Your task to perform on an android device: open wifi settings Image 0: 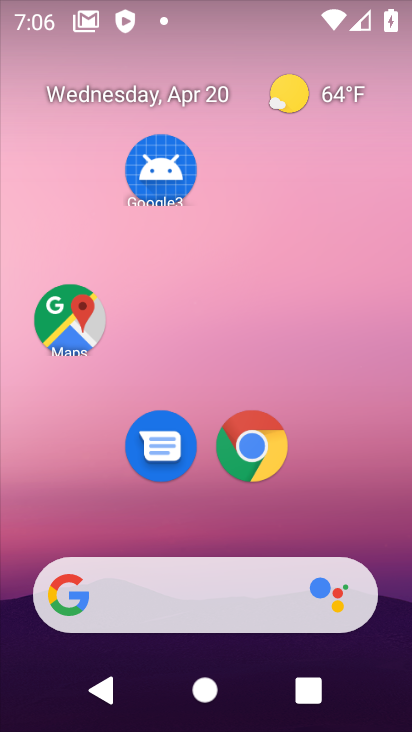
Step 0: click (202, 525)
Your task to perform on an android device: open wifi settings Image 1: 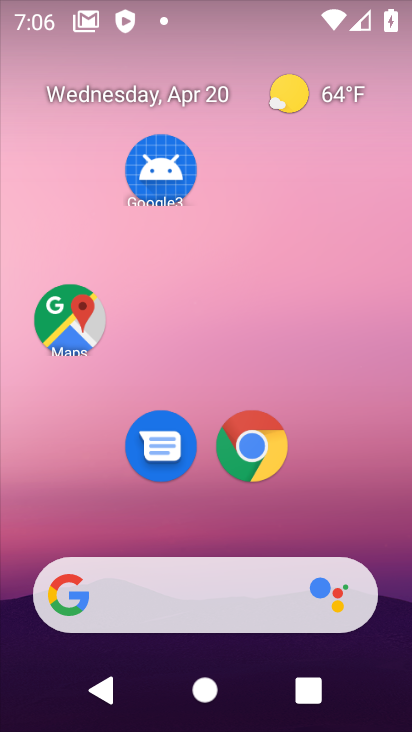
Step 1: drag from (202, 525) to (190, 9)
Your task to perform on an android device: open wifi settings Image 2: 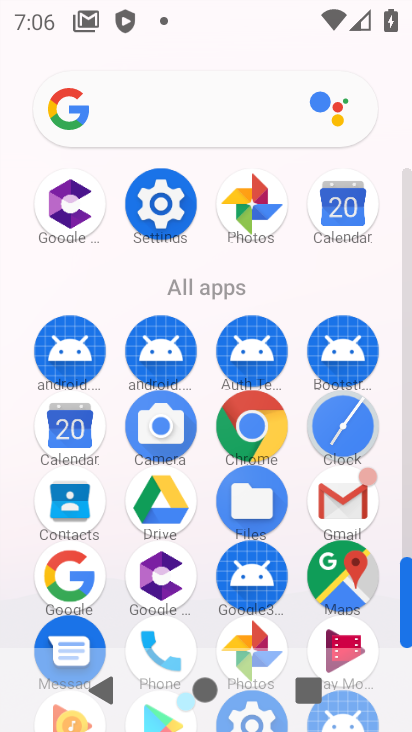
Step 2: click (159, 203)
Your task to perform on an android device: open wifi settings Image 3: 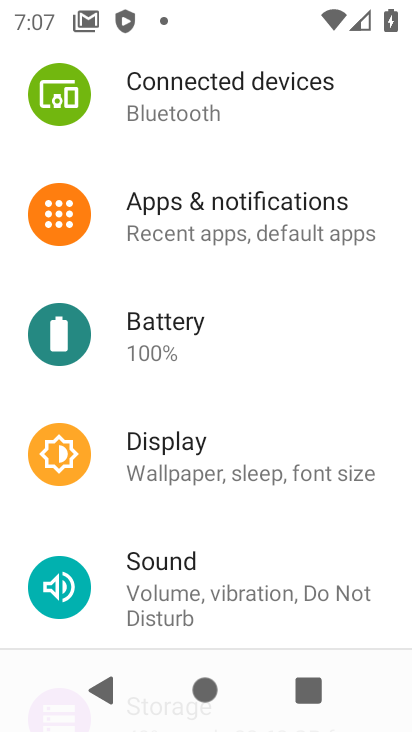
Step 3: drag from (224, 166) to (288, 651)
Your task to perform on an android device: open wifi settings Image 4: 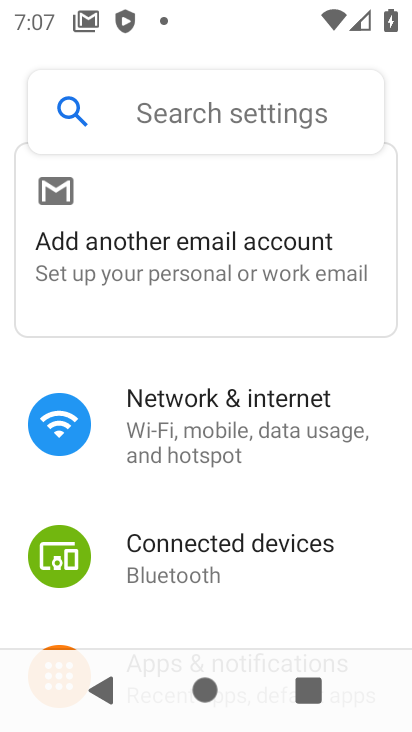
Step 4: click (182, 424)
Your task to perform on an android device: open wifi settings Image 5: 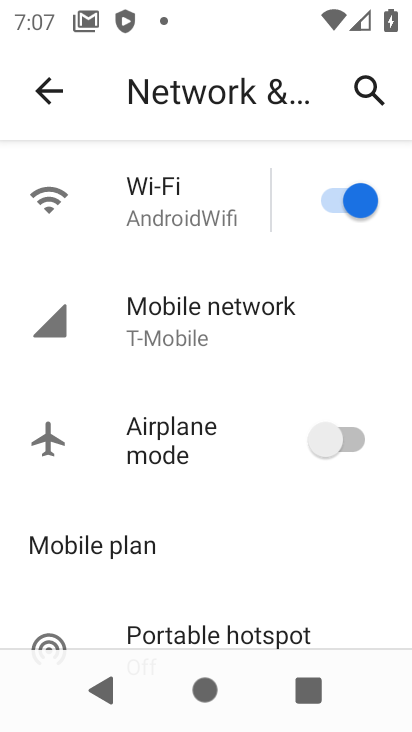
Step 5: click (143, 184)
Your task to perform on an android device: open wifi settings Image 6: 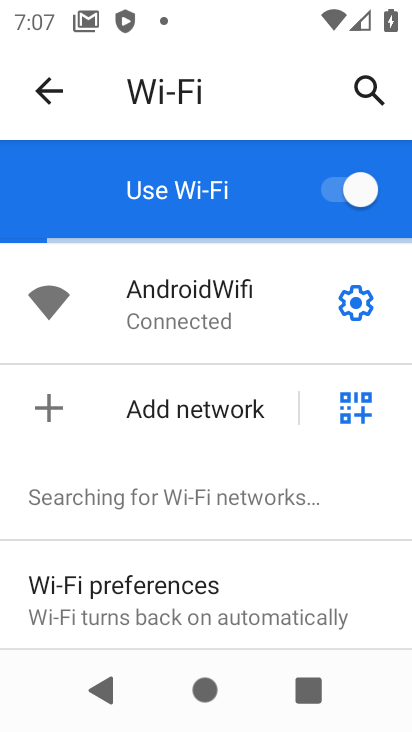
Step 6: task complete